Your task to perform on an android device: turn off priority inbox in the gmail app Image 0: 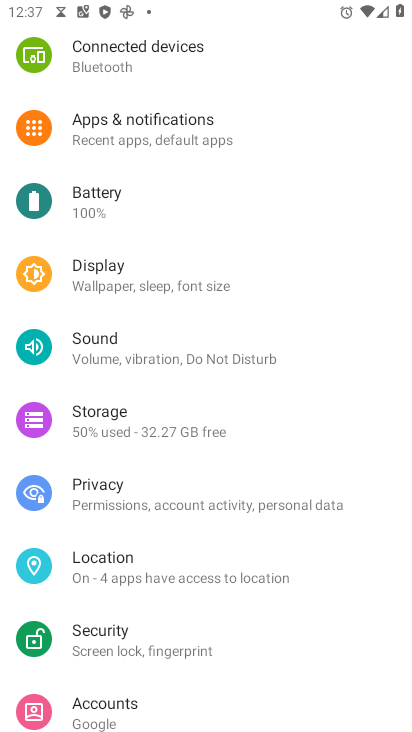
Step 0: press home button
Your task to perform on an android device: turn off priority inbox in the gmail app Image 1: 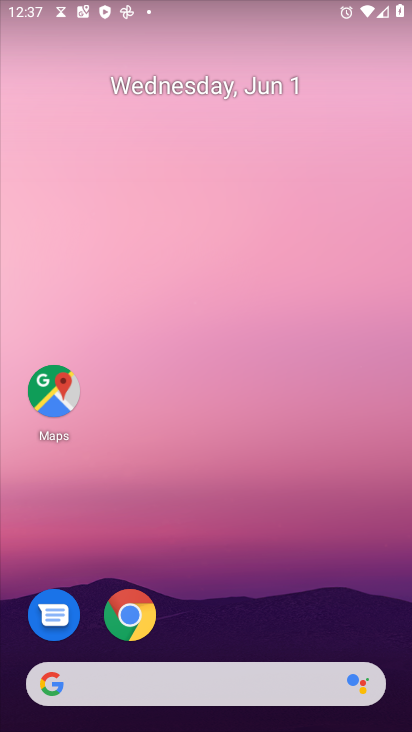
Step 1: drag from (357, 332) to (202, 19)
Your task to perform on an android device: turn off priority inbox in the gmail app Image 2: 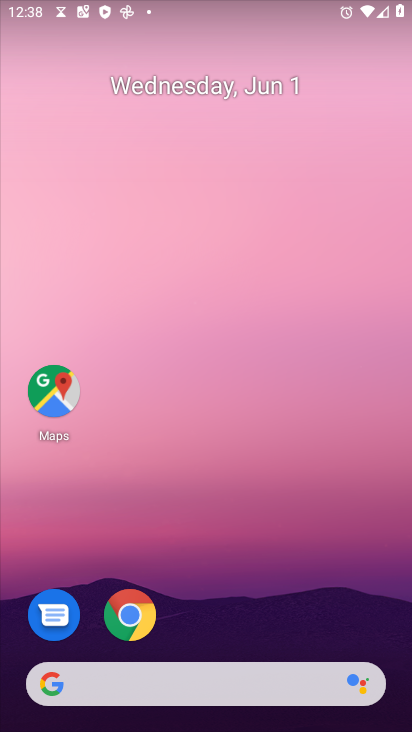
Step 2: drag from (267, 531) to (277, 25)
Your task to perform on an android device: turn off priority inbox in the gmail app Image 3: 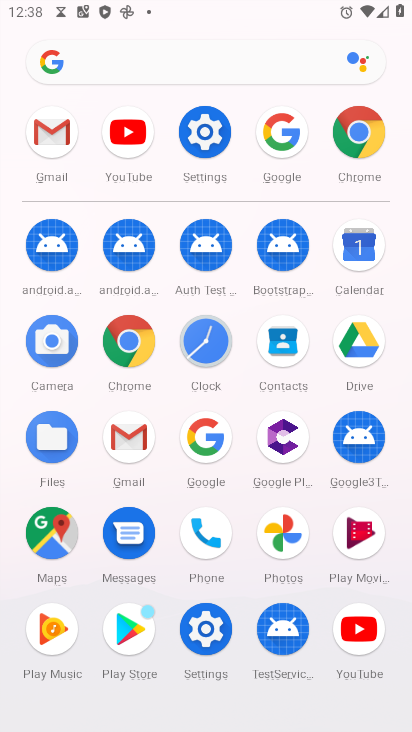
Step 3: click (22, 141)
Your task to perform on an android device: turn off priority inbox in the gmail app Image 4: 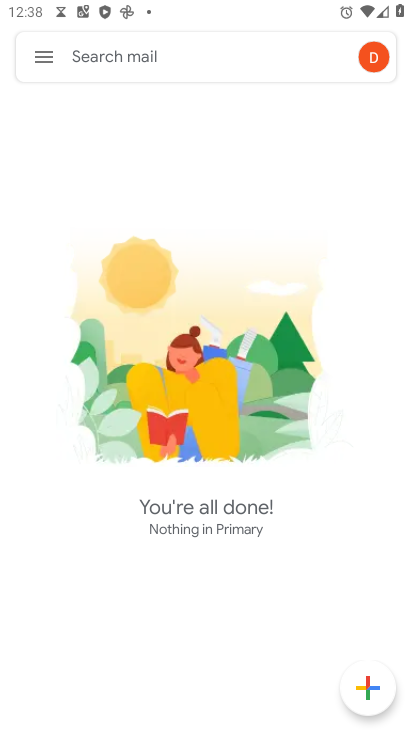
Step 4: click (48, 58)
Your task to perform on an android device: turn off priority inbox in the gmail app Image 5: 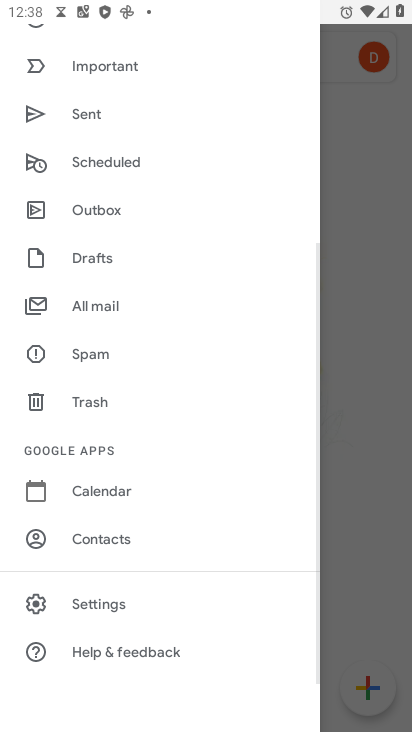
Step 5: click (109, 599)
Your task to perform on an android device: turn off priority inbox in the gmail app Image 6: 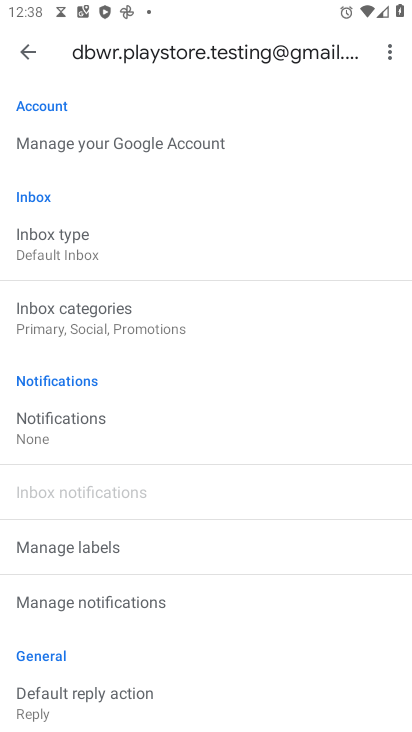
Step 6: click (76, 228)
Your task to perform on an android device: turn off priority inbox in the gmail app Image 7: 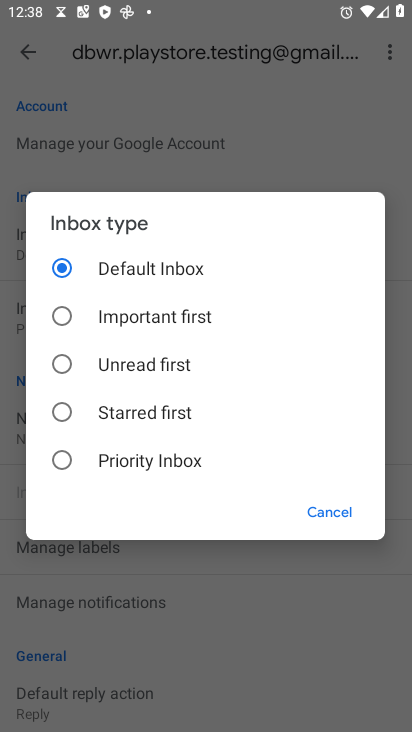
Step 7: task complete